Your task to perform on an android device: turn smart compose on in the gmail app Image 0: 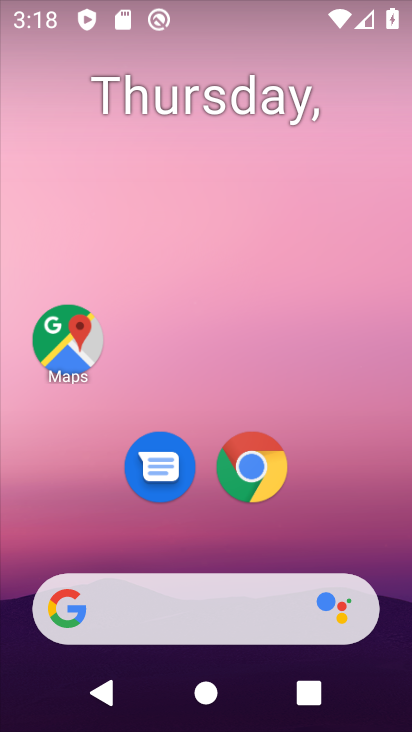
Step 0: drag from (210, 542) to (298, 100)
Your task to perform on an android device: turn smart compose on in the gmail app Image 1: 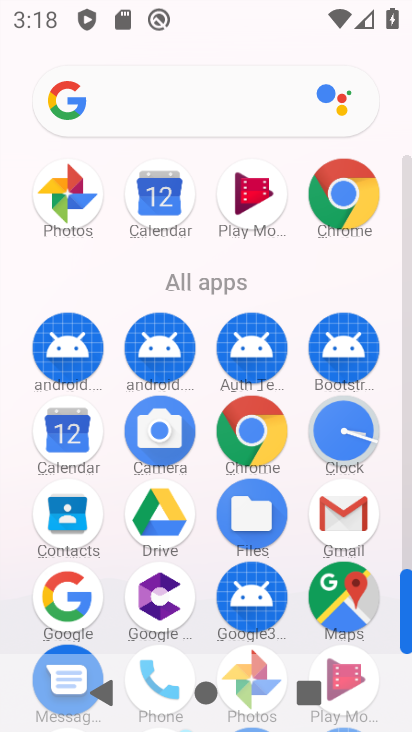
Step 1: click (343, 488)
Your task to perform on an android device: turn smart compose on in the gmail app Image 2: 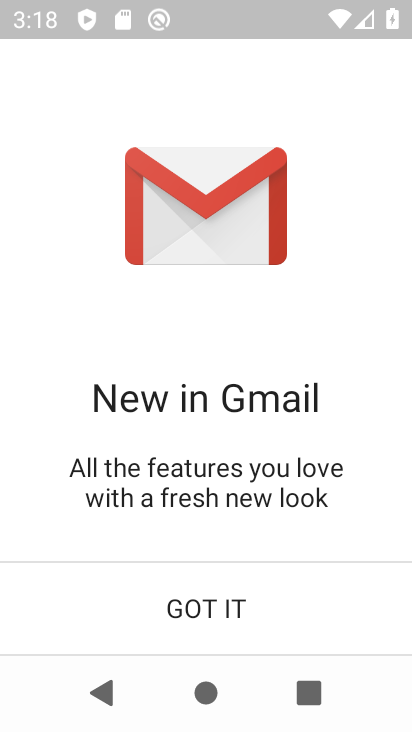
Step 2: click (187, 582)
Your task to perform on an android device: turn smart compose on in the gmail app Image 3: 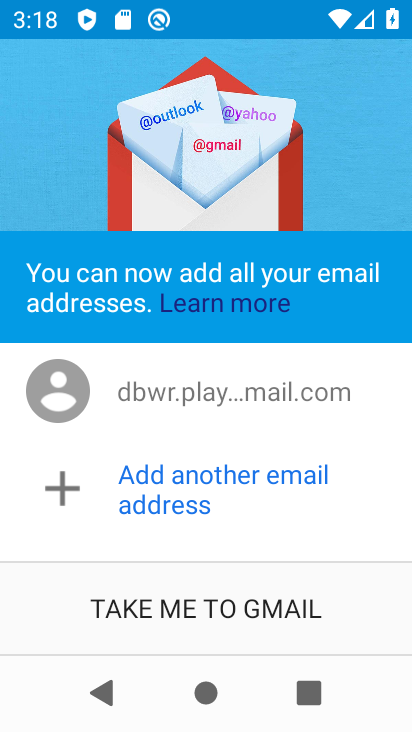
Step 3: click (252, 614)
Your task to perform on an android device: turn smart compose on in the gmail app Image 4: 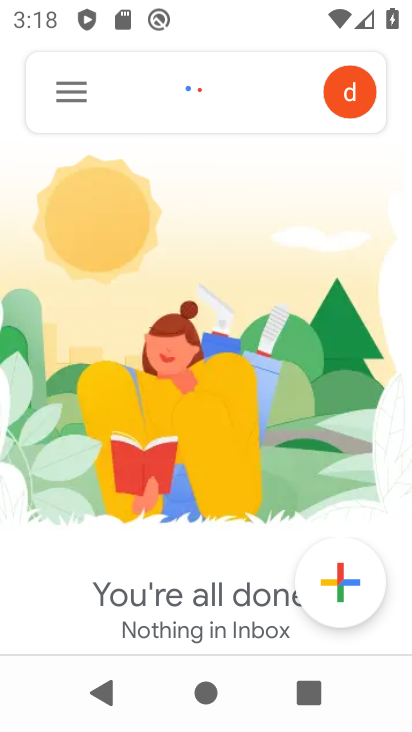
Step 4: click (83, 86)
Your task to perform on an android device: turn smart compose on in the gmail app Image 5: 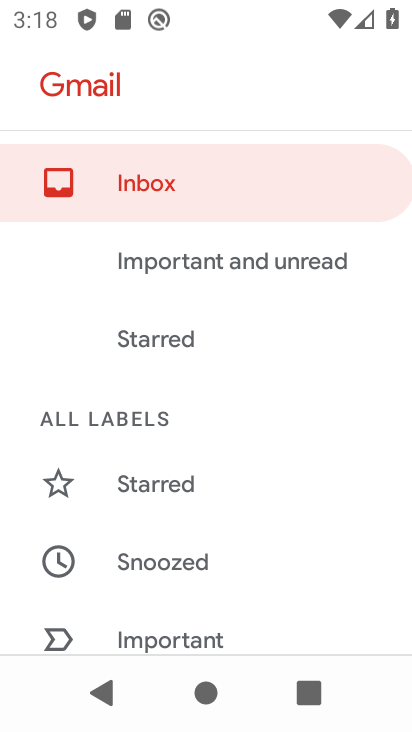
Step 5: drag from (261, 614) to (283, 141)
Your task to perform on an android device: turn smart compose on in the gmail app Image 6: 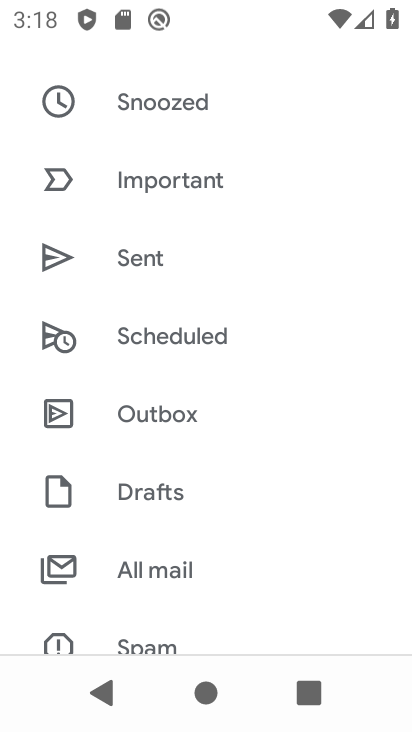
Step 6: drag from (170, 630) to (160, 136)
Your task to perform on an android device: turn smart compose on in the gmail app Image 7: 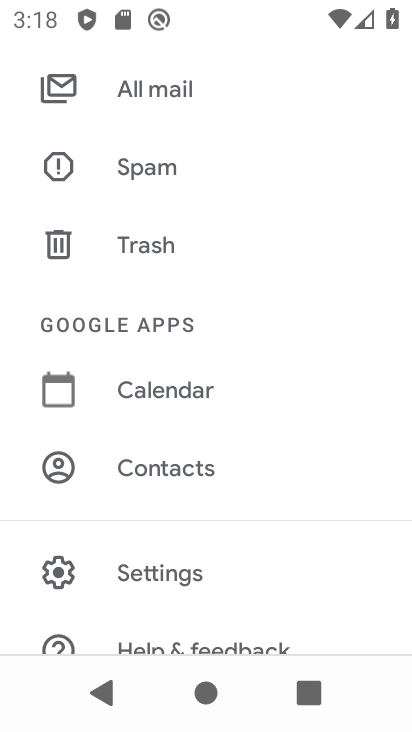
Step 7: click (194, 571)
Your task to perform on an android device: turn smart compose on in the gmail app Image 8: 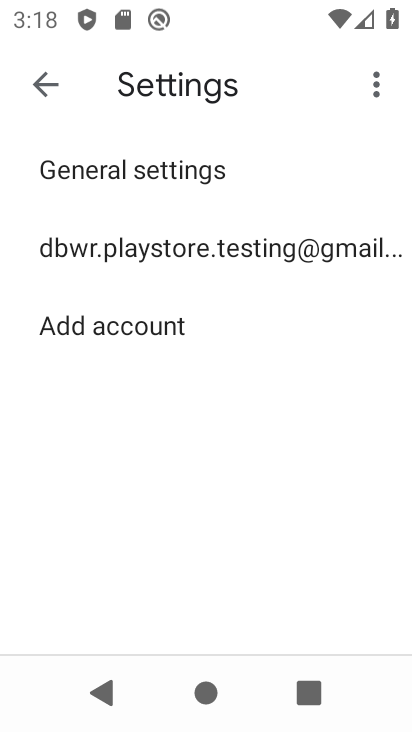
Step 8: click (202, 254)
Your task to perform on an android device: turn smart compose on in the gmail app Image 9: 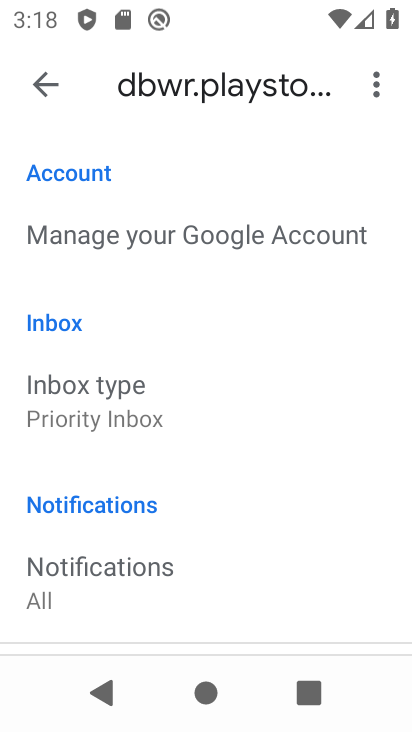
Step 9: task complete